Your task to perform on an android device: Open settings Image 0: 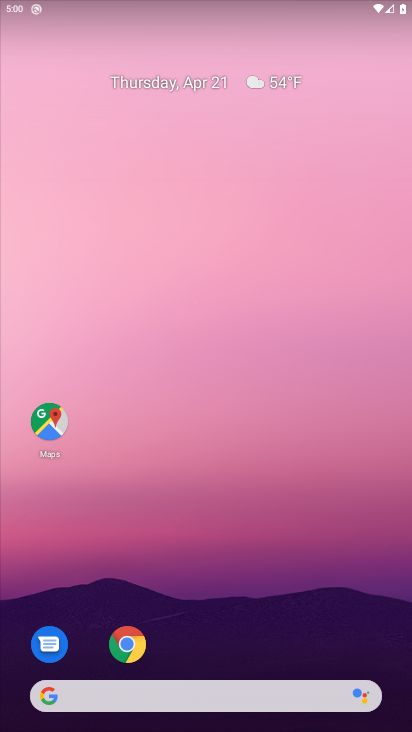
Step 0: drag from (202, 681) to (245, 346)
Your task to perform on an android device: Open settings Image 1: 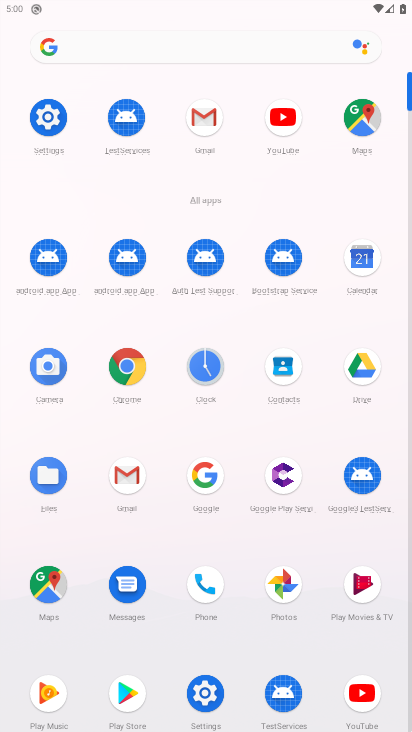
Step 1: click (39, 118)
Your task to perform on an android device: Open settings Image 2: 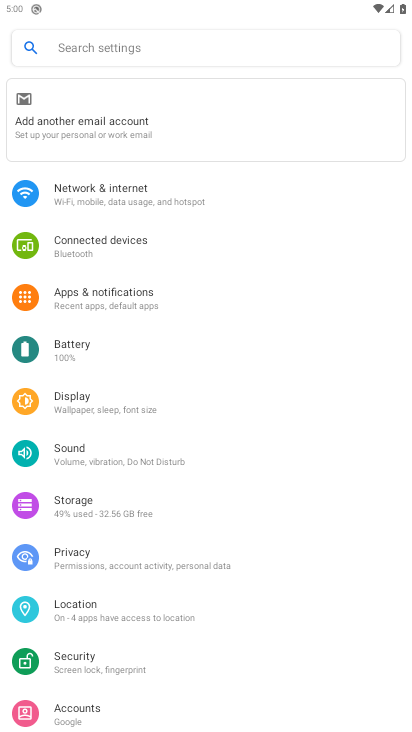
Step 2: task complete